Your task to perform on an android device: turn off javascript in the chrome app Image 0: 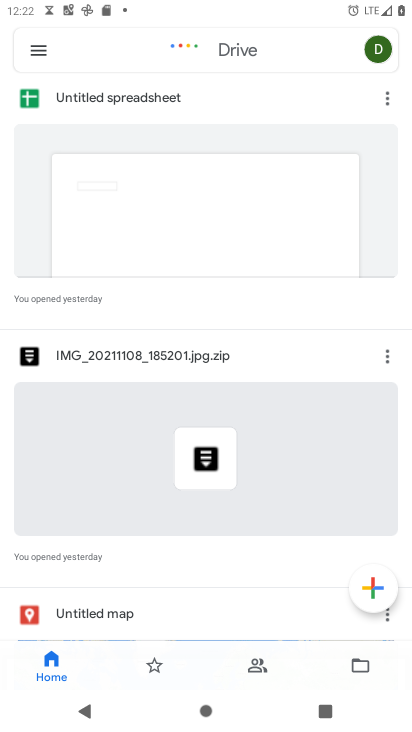
Step 0: press home button
Your task to perform on an android device: turn off javascript in the chrome app Image 1: 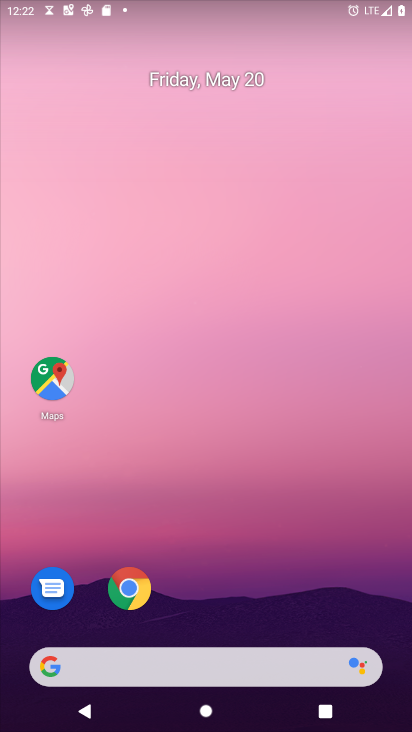
Step 1: click (137, 584)
Your task to perform on an android device: turn off javascript in the chrome app Image 2: 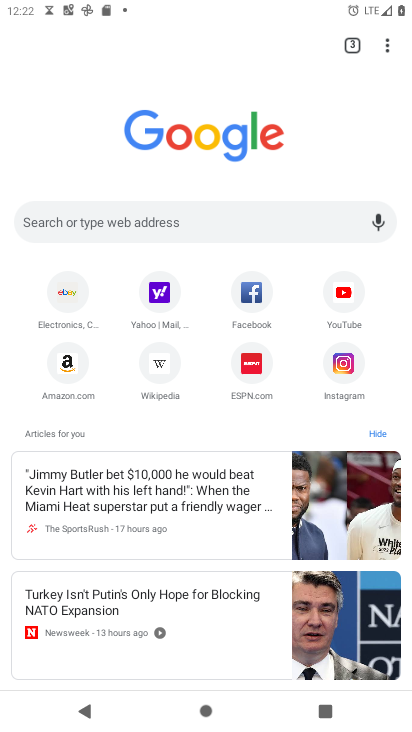
Step 2: click (383, 45)
Your task to perform on an android device: turn off javascript in the chrome app Image 3: 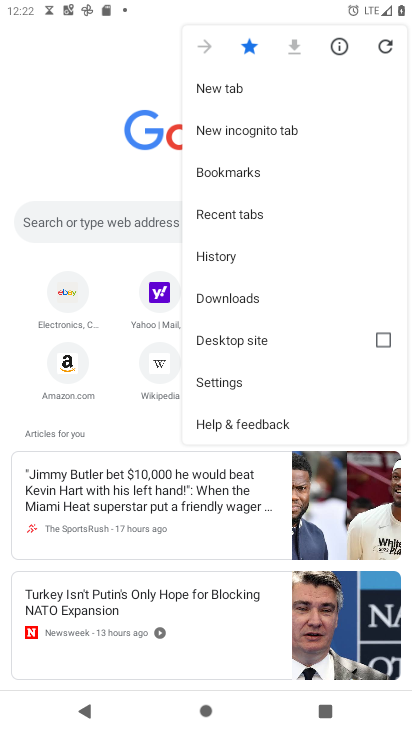
Step 3: click (267, 385)
Your task to perform on an android device: turn off javascript in the chrome app Image 4: 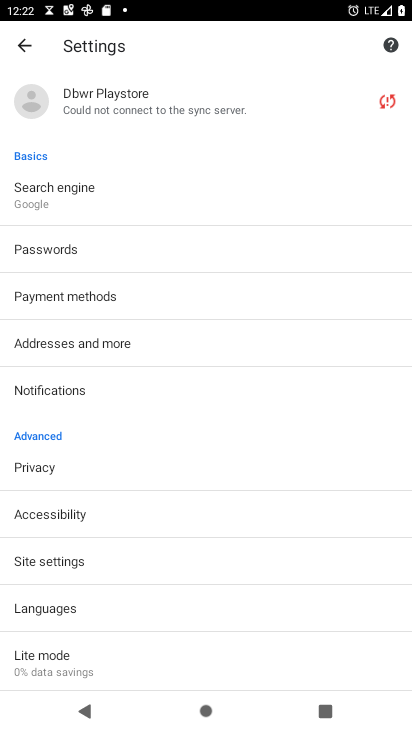
Step 4: click (170, 568)
Your task to perform on an android device: turn off javascript in the chrome app Image 5: 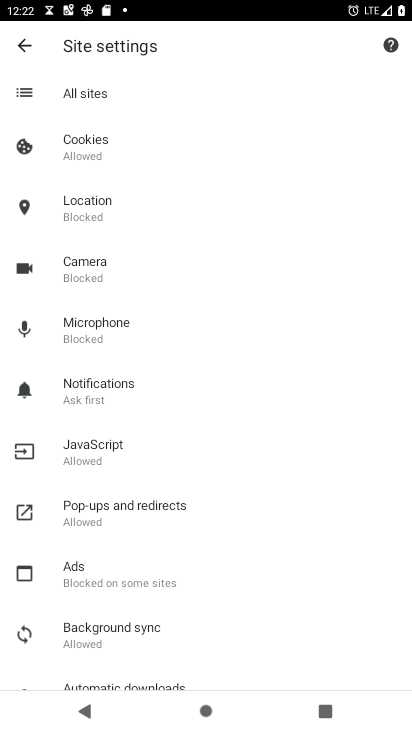
Step 5: drag from (196, 603) to (219, 389)
Your task to perform on an android device: turn off javascript in the chrome app Image 6: 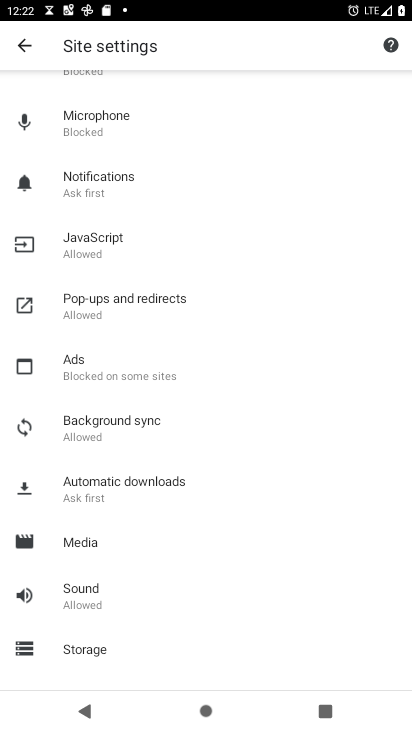
Step 6: click (139, 253)
Your task to perform on an android device: turn off javascript in the chrome app Image 7: 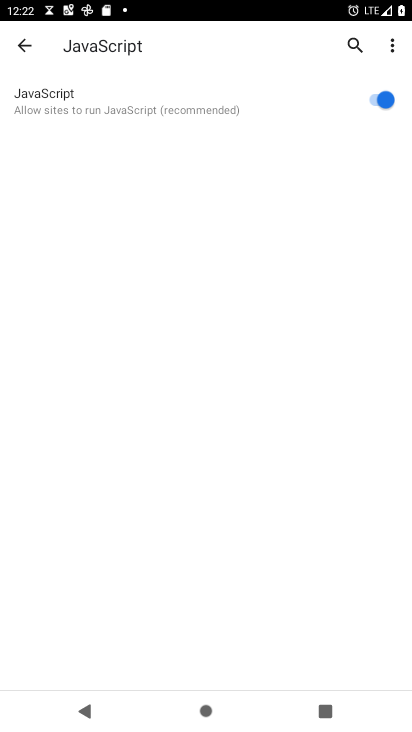
Step 7: click (371, 83)
Your task to perform on an android device: turn off javascript in the chrome app Image 8: 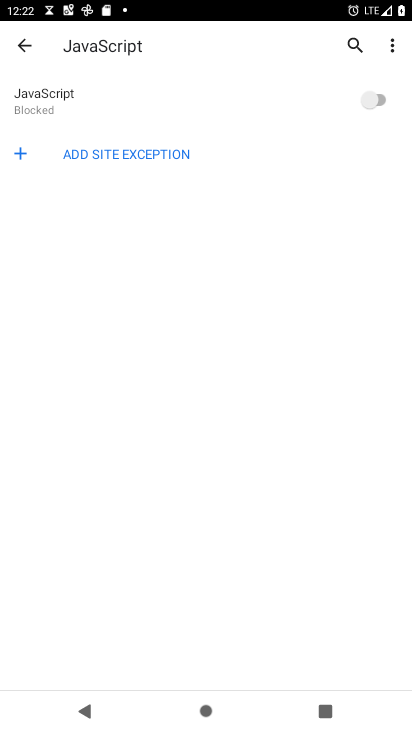
Step 8: task complete